Your task to perform on an android device: toggle improve location accuracy Image 0: 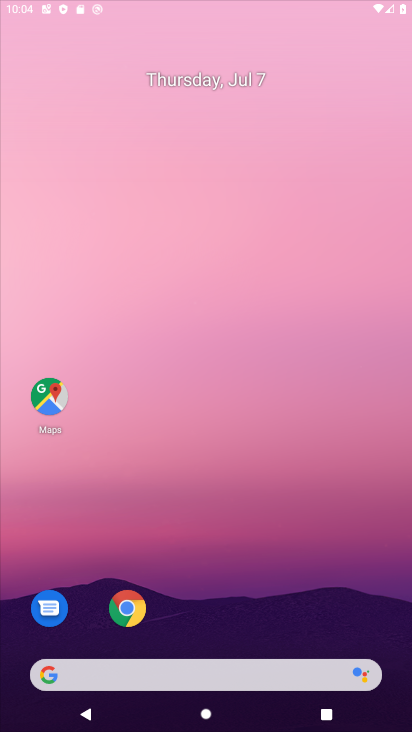
Step 0: click (214, 123)
Your task to perform on an android device: toggle improve location accuracy Image 1: 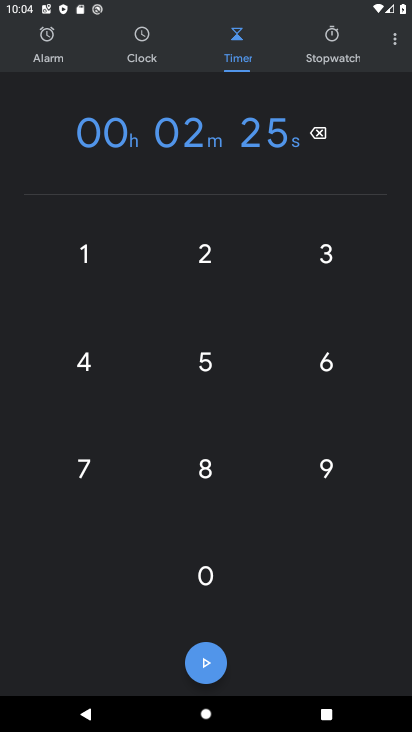
Step 1: press home button
Your task to perform on an android device: toggle improve location accuracy Image 2: 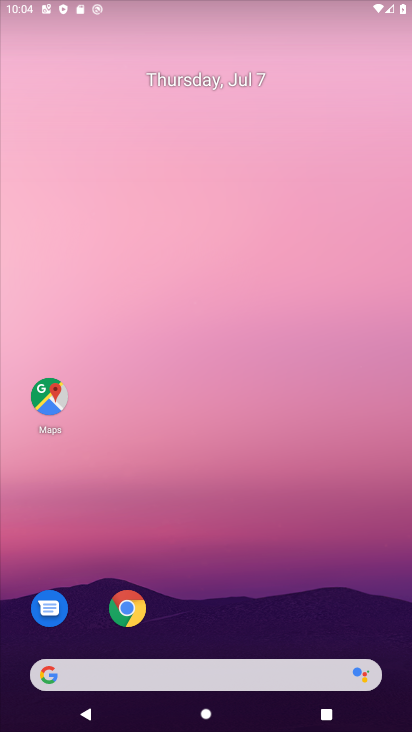
Step 2: drag from (217, 601) to (229, 142)
Your task to perform on an android device: toggle improve location accuracy Image 3: 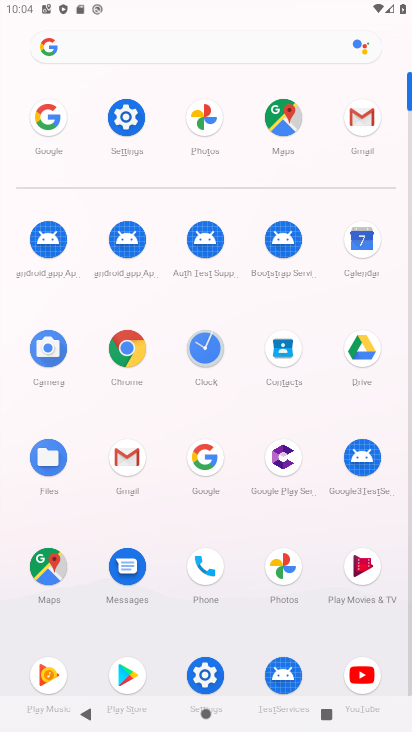
Step 3: click (123, 112)
Your task to perform on an android device: toggle improve location accuracy Image 4: 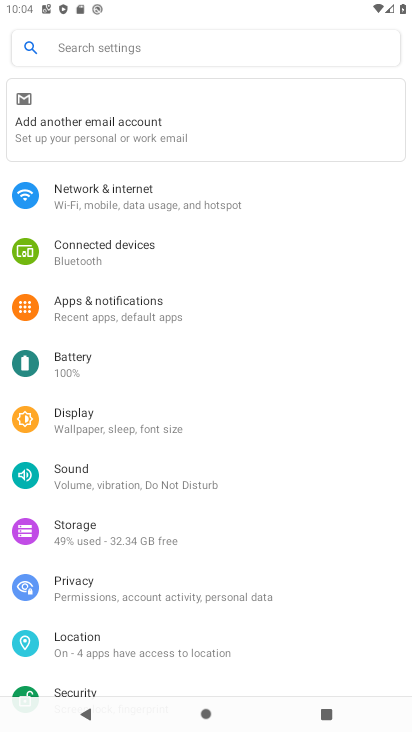
Step 4: click (100, 633)
Your task to perform on an android device: toggle improve location accuracy Image 5: 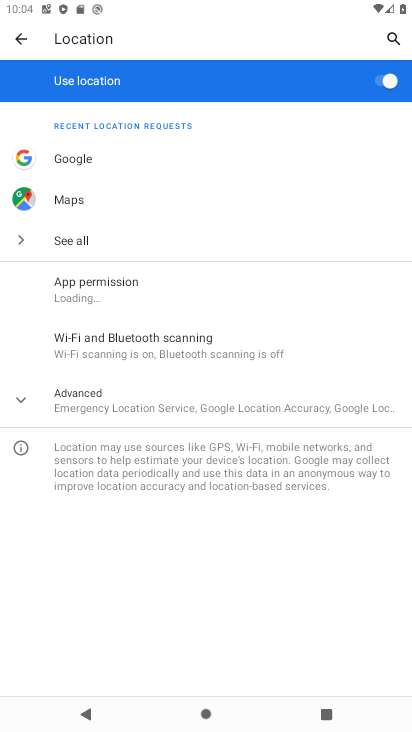
Step 5: click (90, 403)
Your task to perform on an android device: toggle improve location accuracy Image 6: 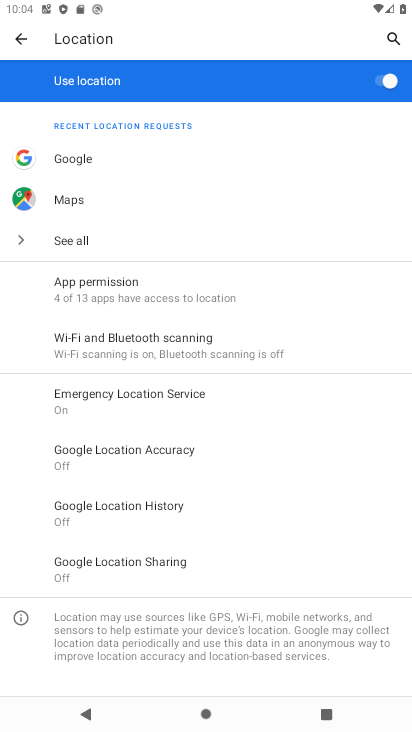
Step 6: click (148, 452)
Your task to perform on an android device: toggle improve location accuracy Image 7: 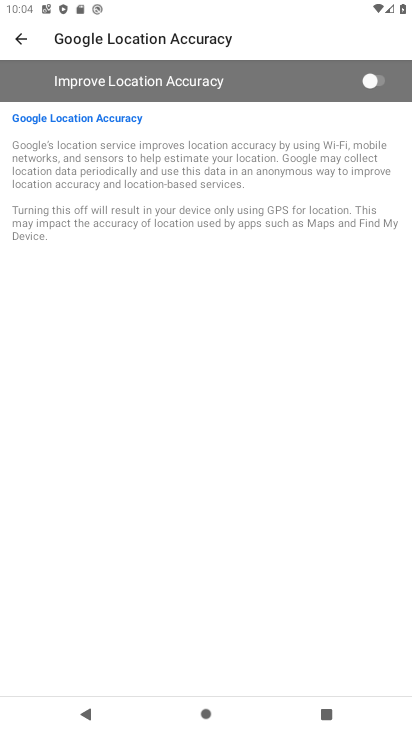
Step 7: click (378, 76)
Your task to perform on an android device: toggle improve location accuracy Image 8: 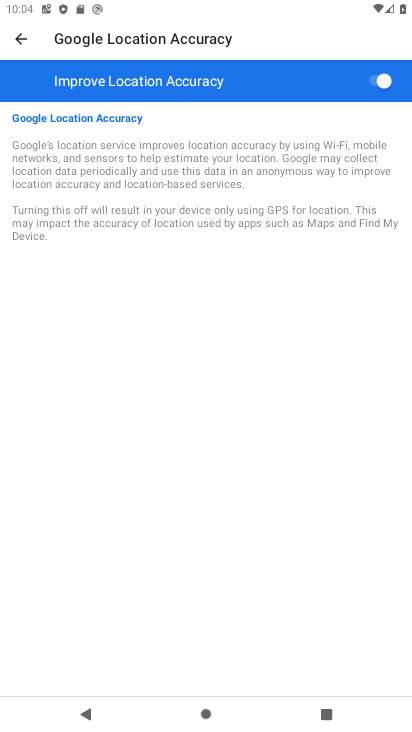
Step 8: task complete